Your task to perform on an android device: toggle airplane mode Image 0: 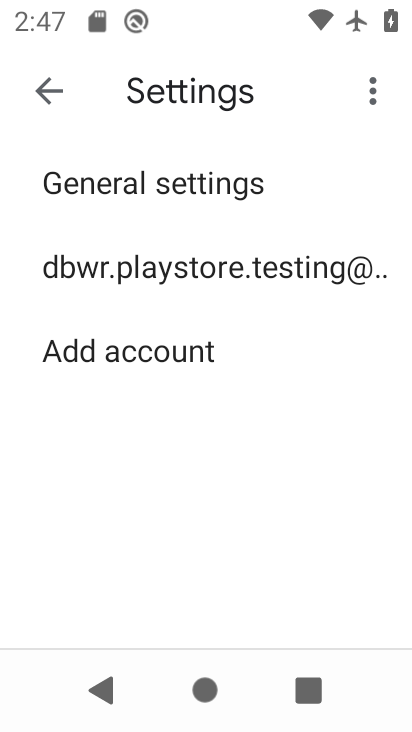
Step 0: press home button
Your task to perform on an android device: toggle airplane mode Image 1: 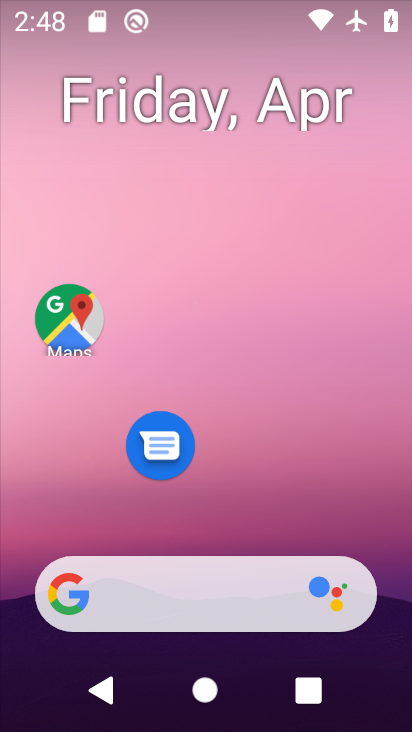
Step 1: drag from (293, 488) to (396, 70)
Your task to perform on an android device: toggle airplane mode Image 2: 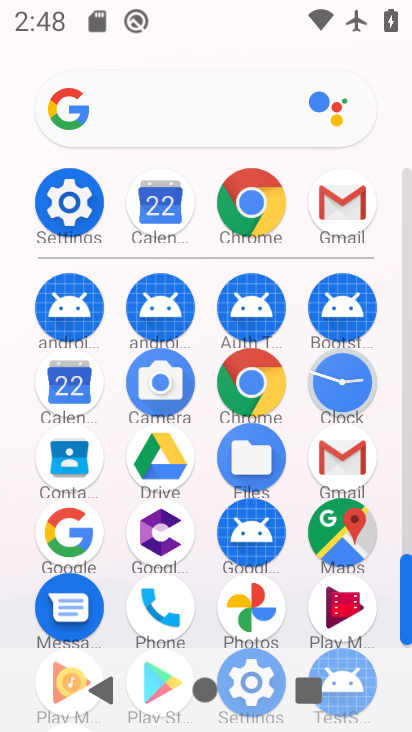
Step 2: click (50, 205)
Your task to perform on an android device: toggle airplane mode Image 3: 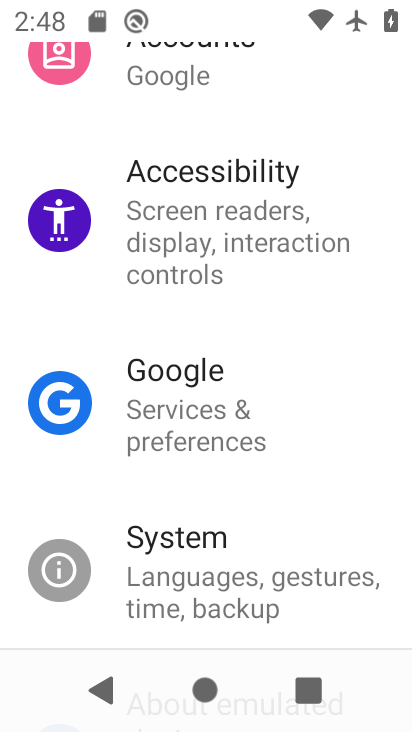
Step 3: drag from (172, 352) to (216, 451)
Your task to perform on an android device: toggle airplane mode Image 4: 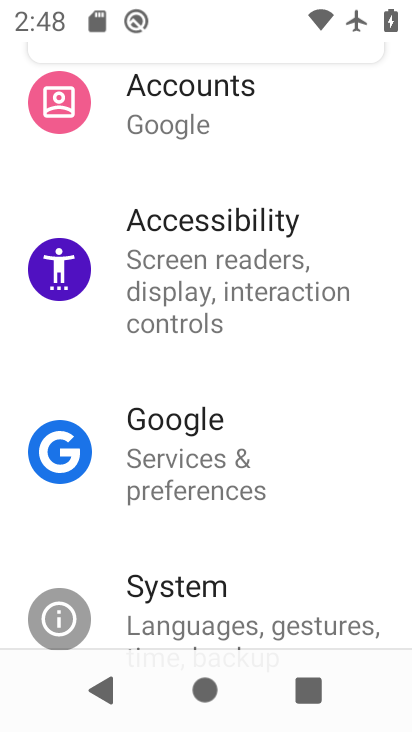
Step 4: drag from (232, 328) to (267, 494)
Your task to perform on an android device: toggle airplane mode Image 5: 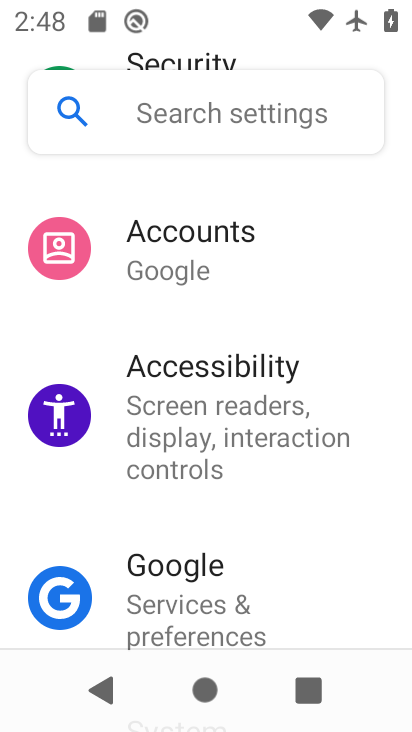
Step 5: drag from (245, 298) to (251, 480)
Your task to perform on an android device: toggle airplane mode Image 6: 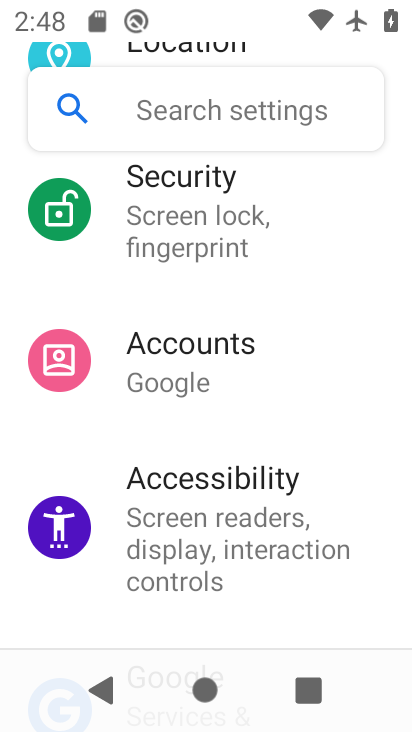
Step 6: drag from (232, 365) to (222, 584)
Your task to perform on an android device: toggle airplane mode Image 7: 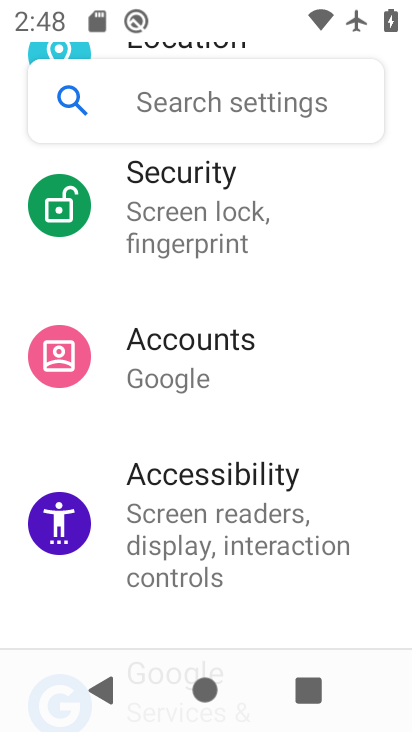
Step 7: drag from (209, 199) to (220, 529)
Your task to perform on an android device: toggle airplane mode Image 8: 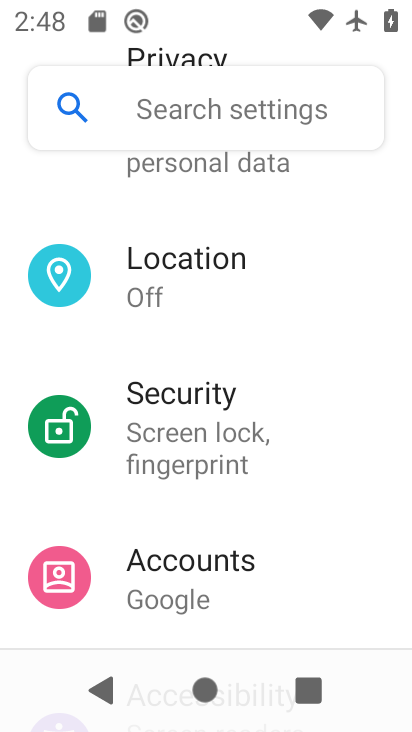
Step 8: drag from (237, 264) to (227, 543)
Your task to perform on an android device: toggle airplane mode Image 9: 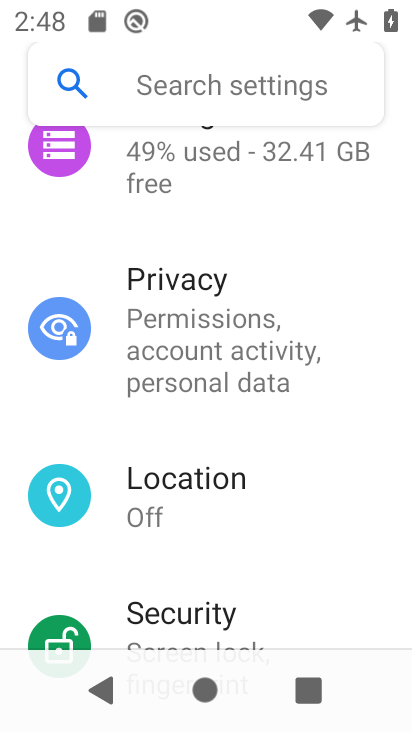
Step 9: drag from (163, 205) to (160, 529)
Your task to perform on an android device: toggle airplane mode Image 10: 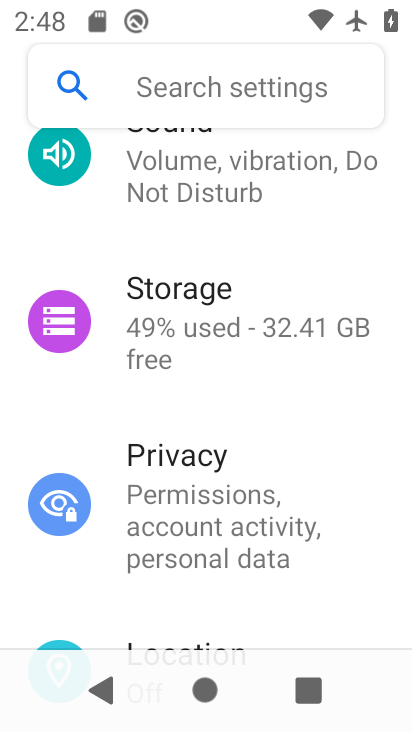
Step 10: drag from (219, 297) to (215, 553)
Your task to perform on an android device: toggle airplane mode Image 11: 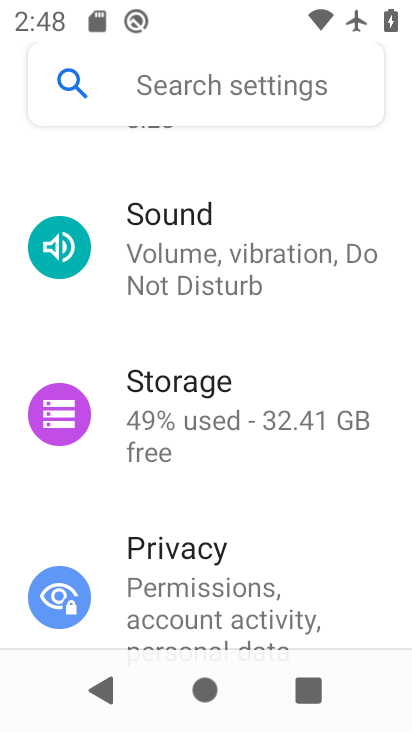
Step 11: drag from (227, 220) to (212, 550)
Your task to perform on an android device: toggle airplane mode Image 12: 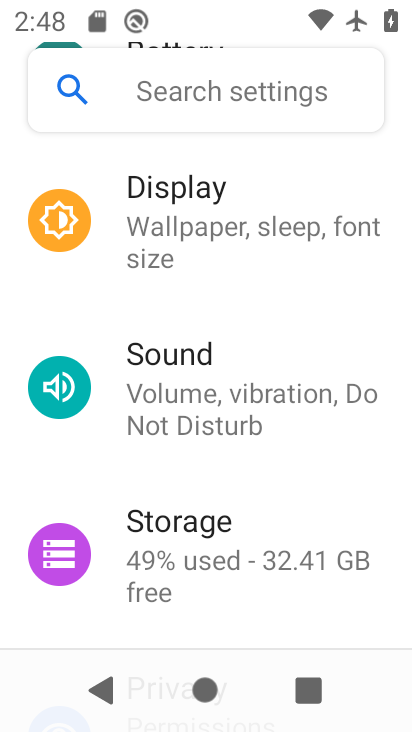
Step 12: drag from (234, 325) to (213, 578)
Your task to perform on an android device: toggle airplane mode Image 13: 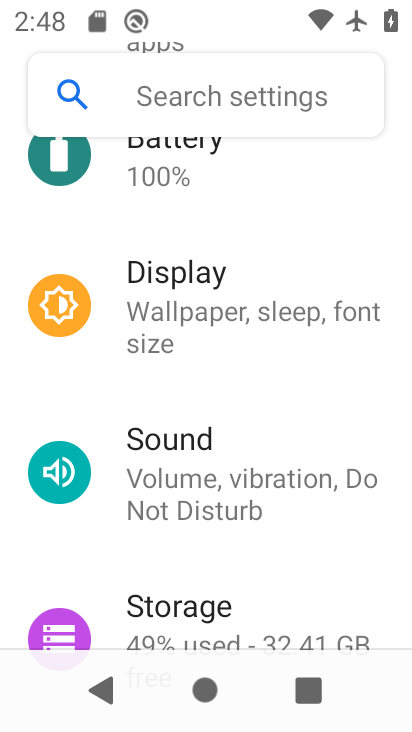
Step 13: drag from (246, 363) to (255, 688)
Your task to perform on an android device: toggle airplane mode Image 14: 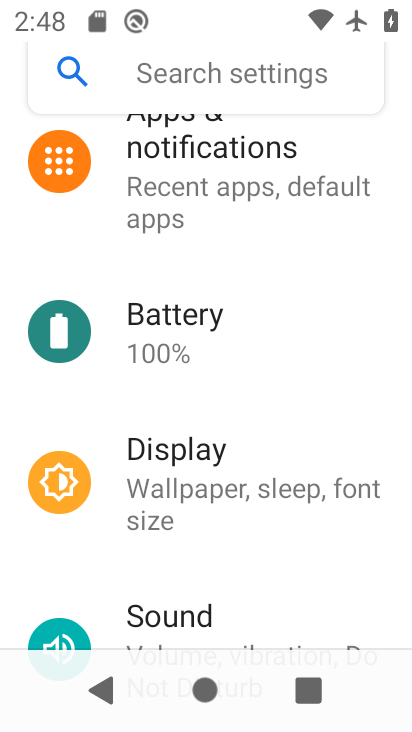
Step 14: drag from (300, 278) to (312, 676)
Your task to perform on an android device: toggle airplane mode Image 15: 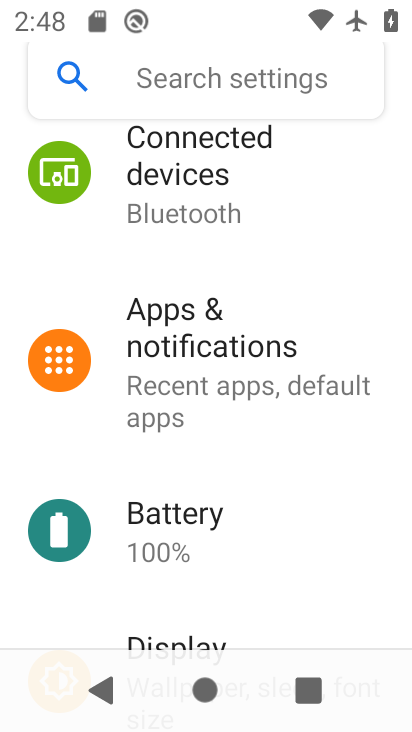
Step 15: drag from (286, 274) to (288, 664)
Your task to perform on an android device: toggle airplane mode Image 16: 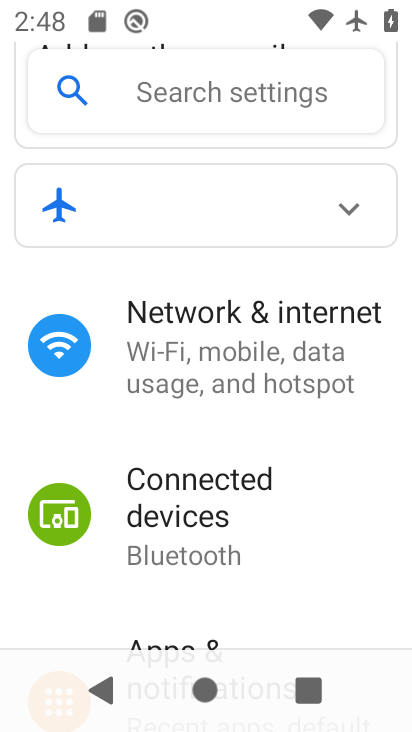
Step 16: click (274, 330)
Your task to perform on an android device: toggle airplane mode Image 17: 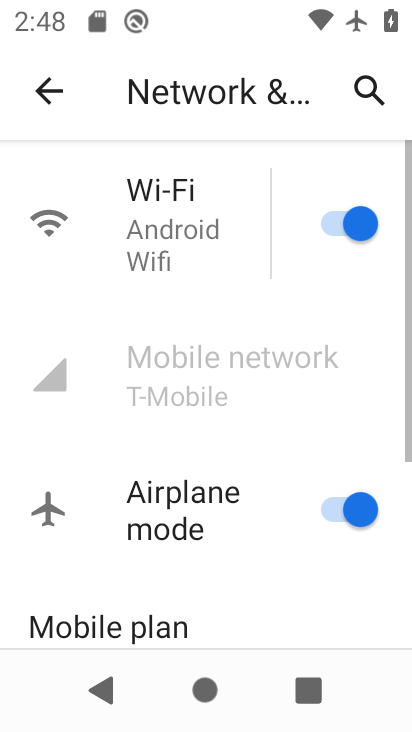
Step 17: click (327, 503)
Your task to perform on an android device: toggle airplane mode Image 18: 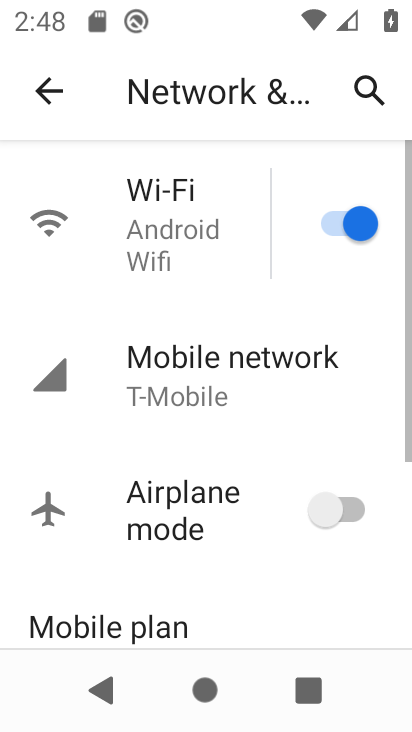
Step 18: task complete